Your task to perform on an android device: Search for vintage wall art on Etsy. Image 0: 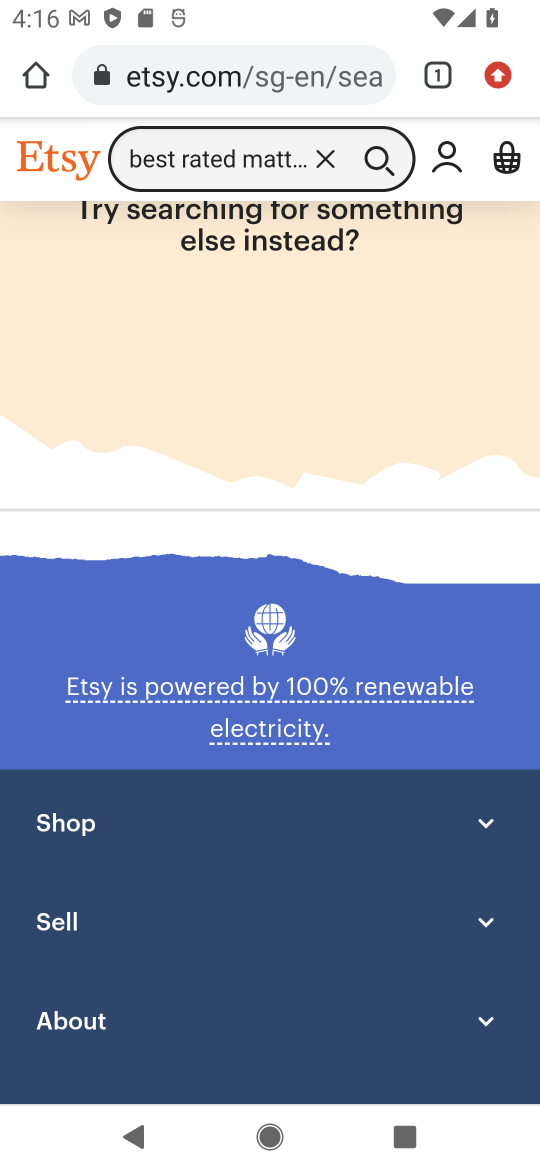
Step 0: click (387, 938)
Your task to perform on an android device: Search for vintage wall art on Etsy. Image 1: 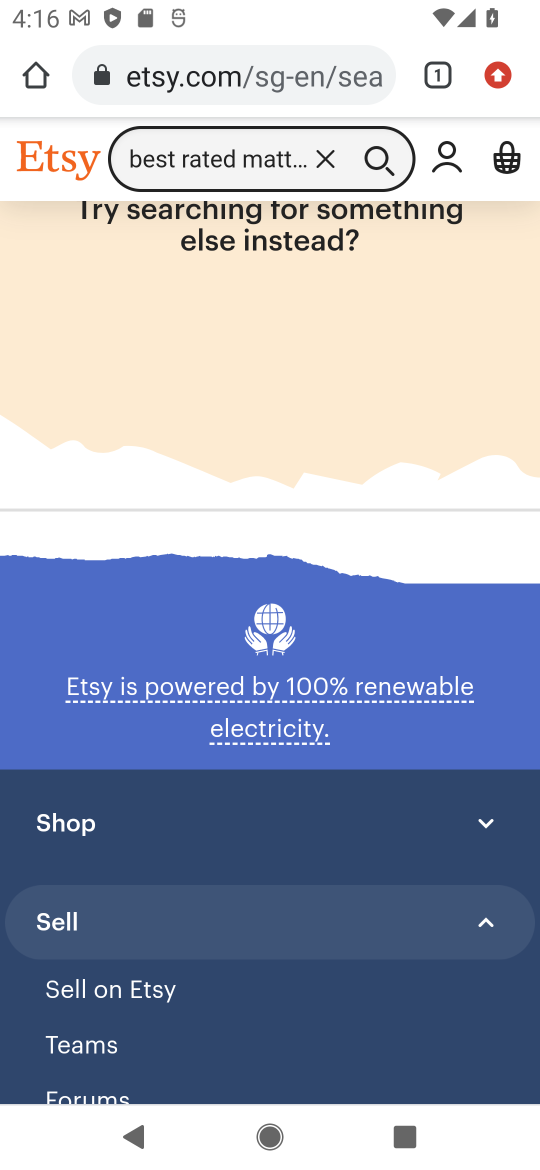
Step 1: press home button
Your task to perform on an android device: Search for vintage wall art on Etsy. Image 2: 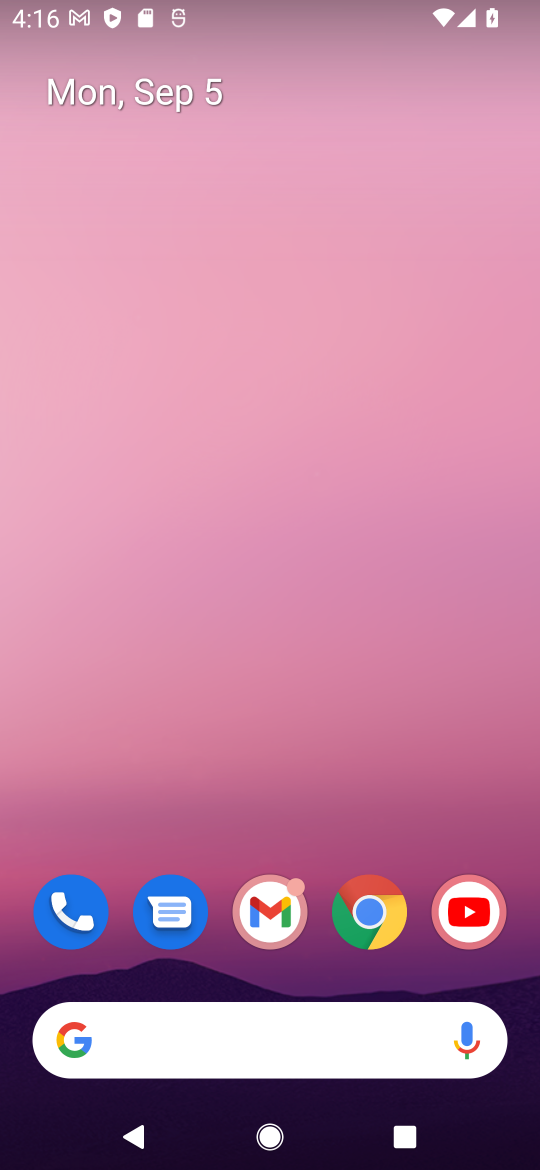
Step 2: click (390, 905)
Your task to perform on an android device: Search for vintage wall art on Etsy. Image 3: 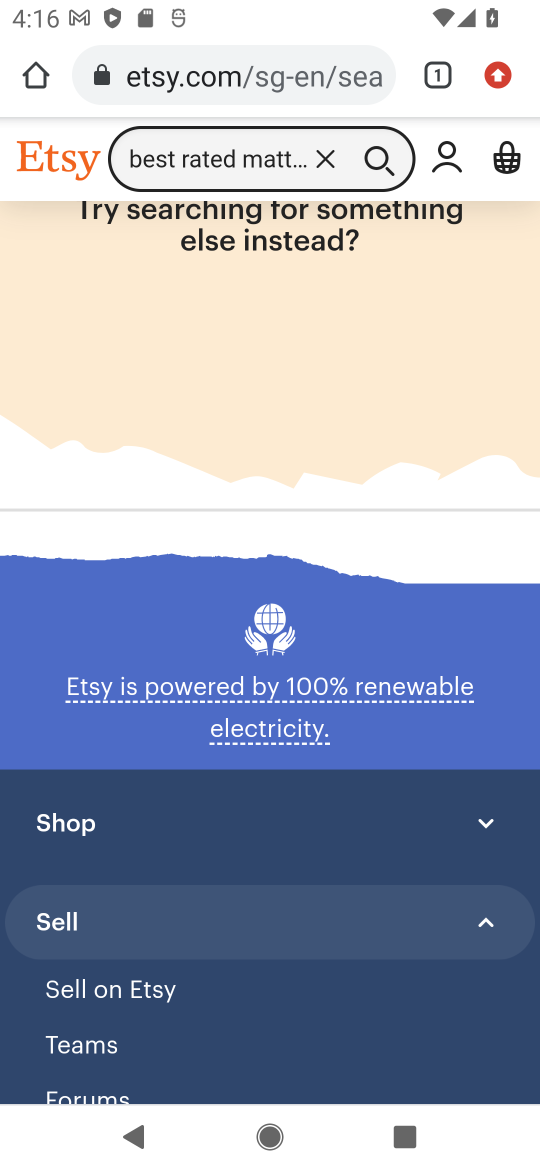
Step 3: click (291, 78)
Your task to perform on an android device: Search for vintage wall art on Etsy. Image 4: 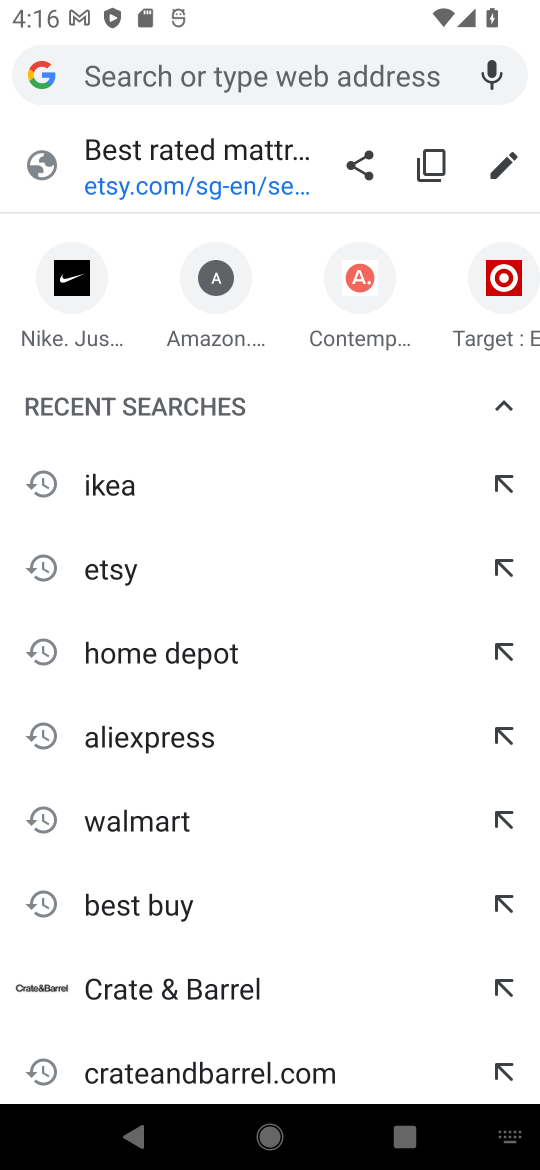
Step 4: type "etsy"
Your task to perform on an android device: Search for vintage wall art on Etsy. Image 5: 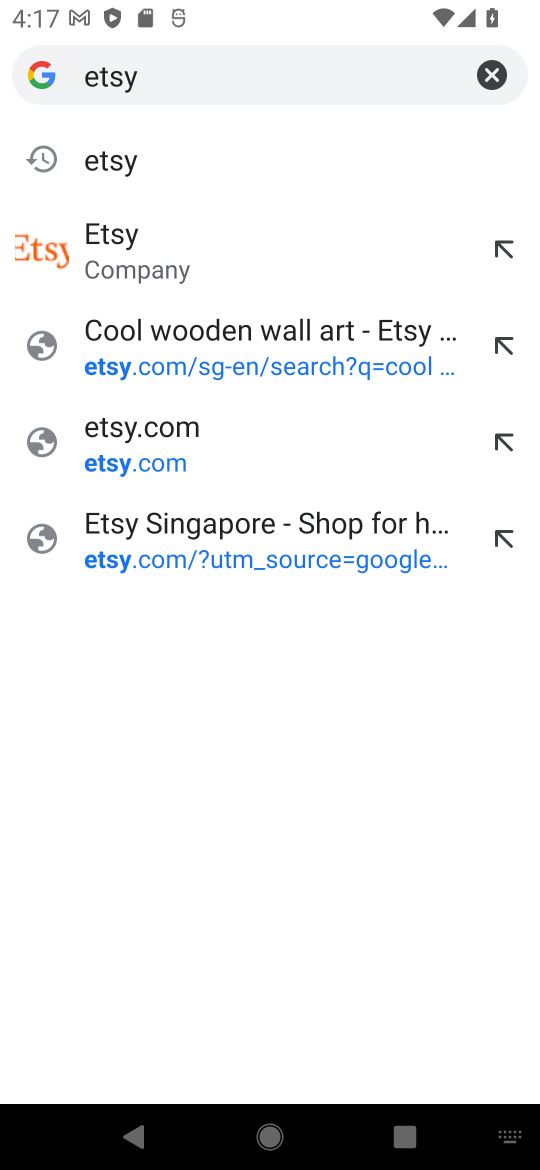
Step 5: press enter
Your task to perform on an android device: Search for vintage wall art on Etsy. Image 6: 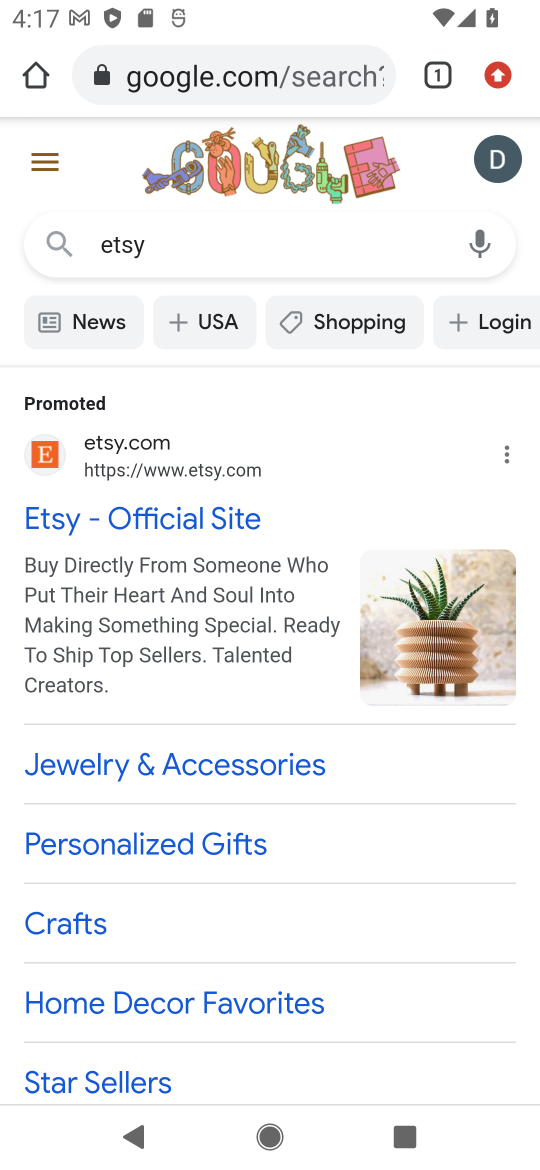
Step 6: click (135, 511)
Your task to perform on an android device: Search for vintage wall art on Etsy. Image 7: 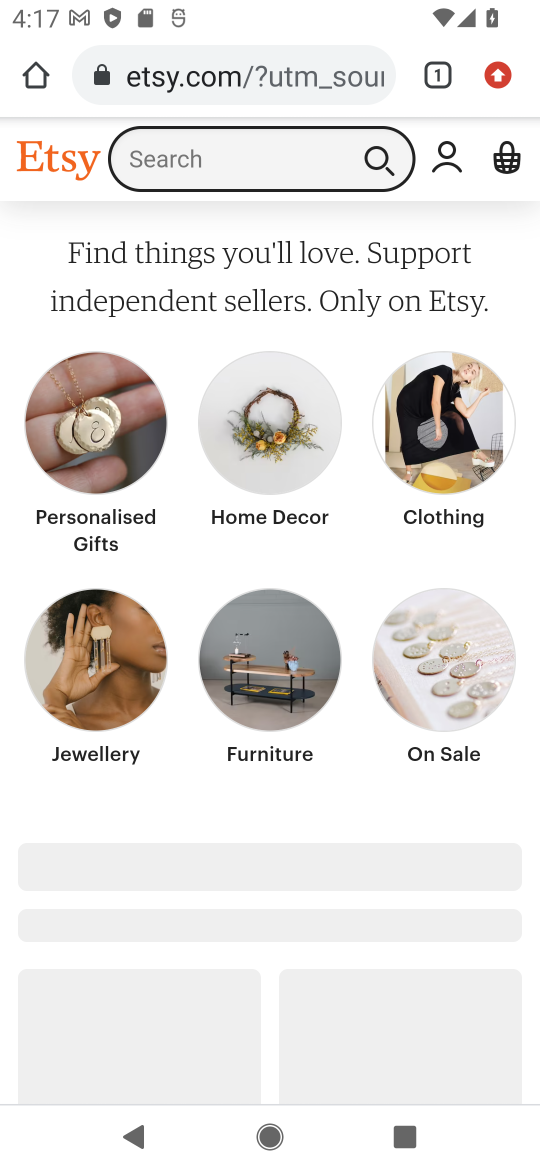
Step 7: click (235, 173)
Your task to perform on an android device: Search for vintage wall art on Etsy. Image 8: 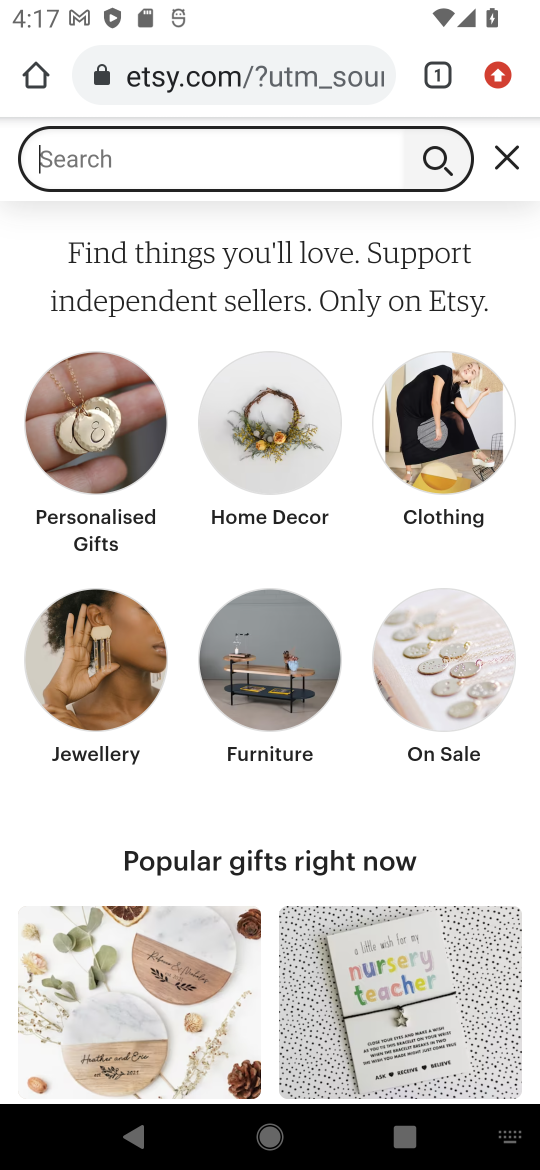
Step 8: type "vintage wall art"
Your task to perform on an android device: Search for vintage wall art on Etsy. Image 9: 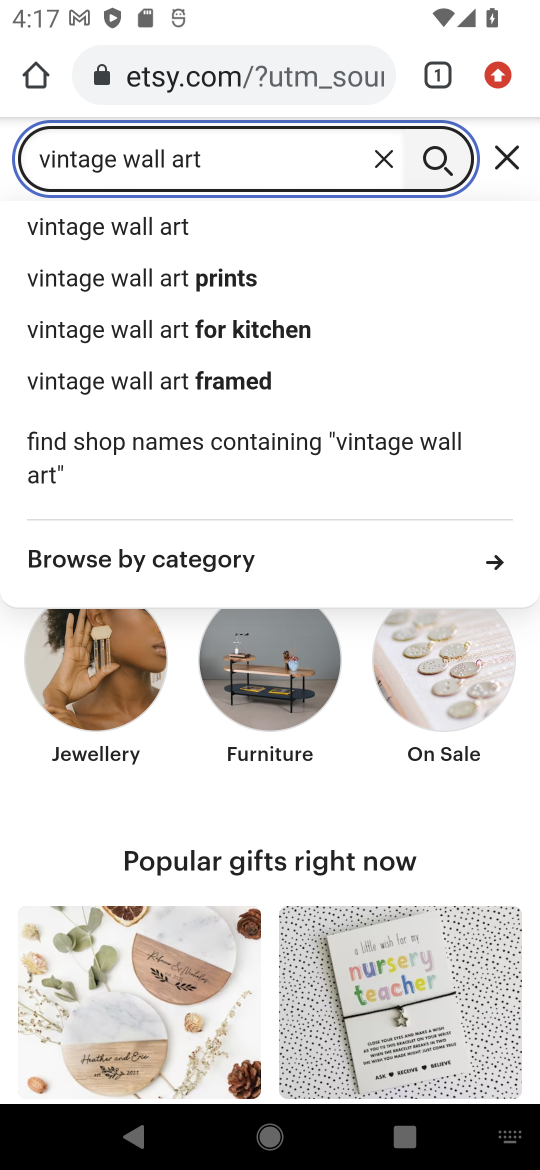
Step 9: press enter
Your task to perform on an android device: Search for vintage wall art on Etsy. Image 10: 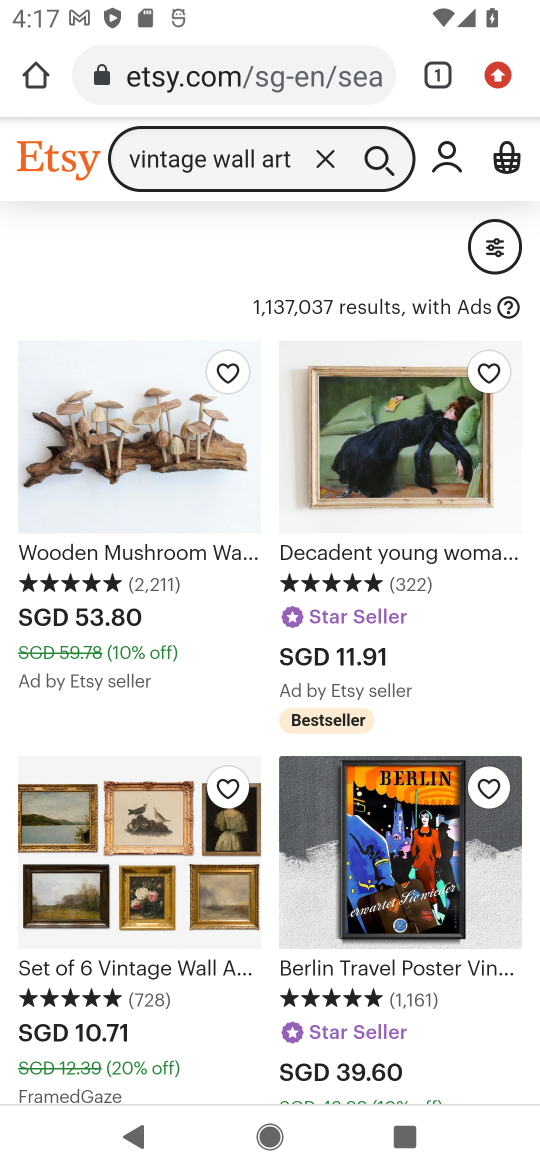
Step 10: task complete